Your task to perform on an android device: Do I have any events today? Image 0: 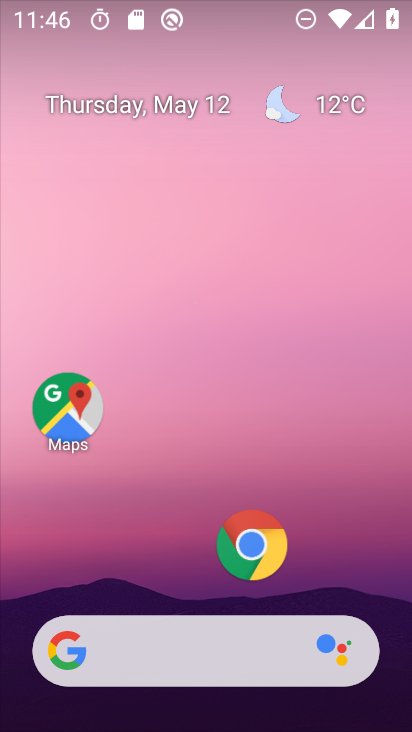
Step 0: drag from (193, 593) to (243, 92)
Your task to perform on an android device: Do I have any events today? Image 1: 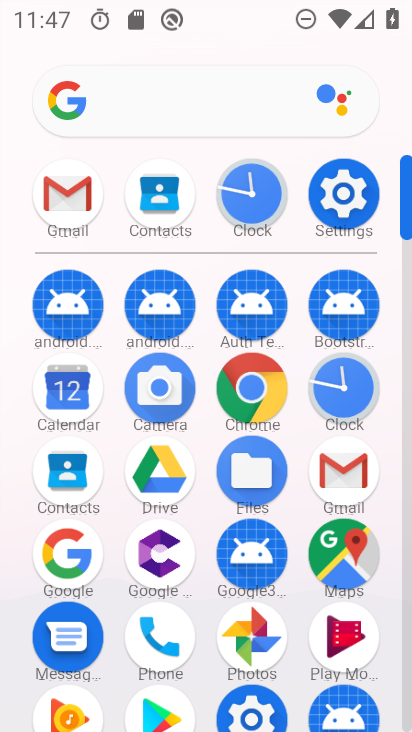
Step 1: click (65, 389)
Your task to perform on an android device: Do I have any events today? Image 2: 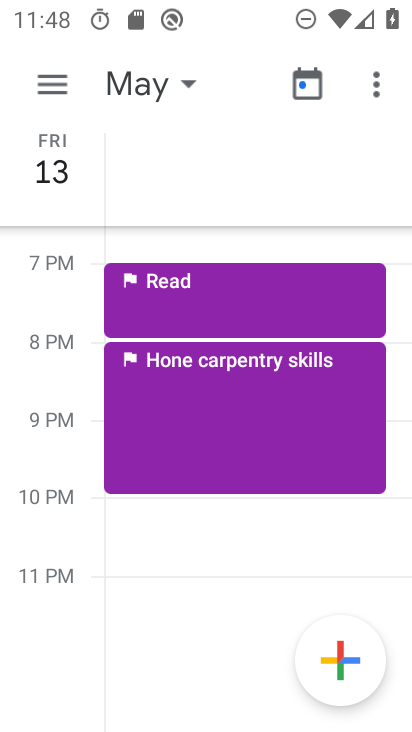
Step 2: click (69, 170)
Your task to perform on an android device: Do I have any events today? Image 3: 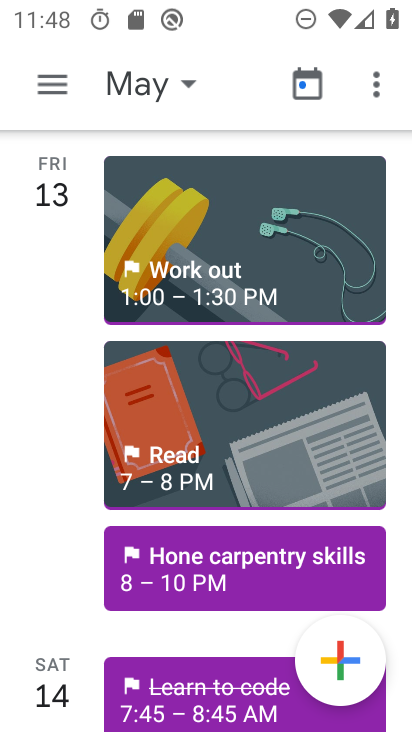
Step 3: drag from (70, 208) to (81, 693)
Your task to perform on an android device: Do I have any events today? Image 4: 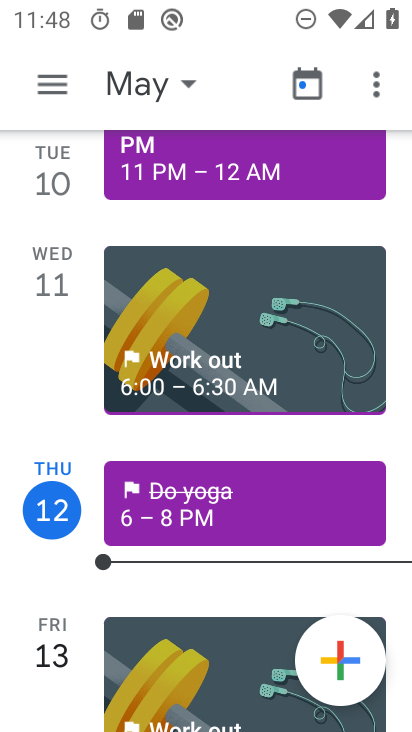
Step 4: click (83, 519)
Your task to perform on an android device: Do I have any events today? Image 5: 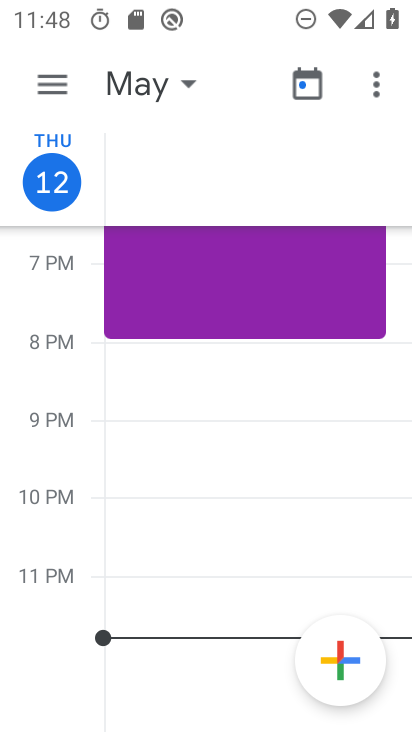
Step 5: task complete